Your task to perform on an android device: check android version Image 0: 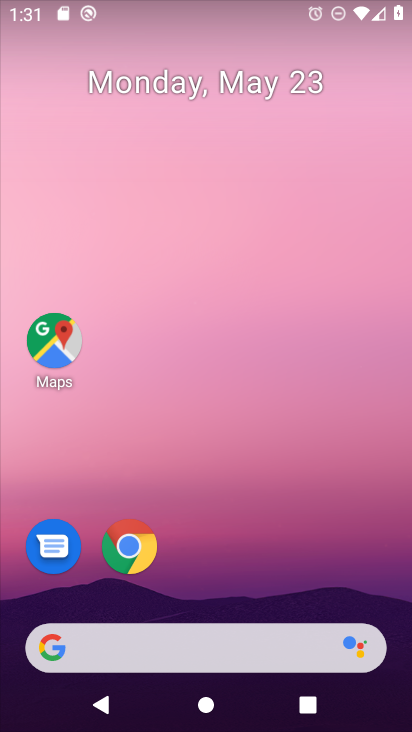
Step 0: drag from (266, 655) to (276, 222)
Your task to perform on an android device: check android version Image 1: 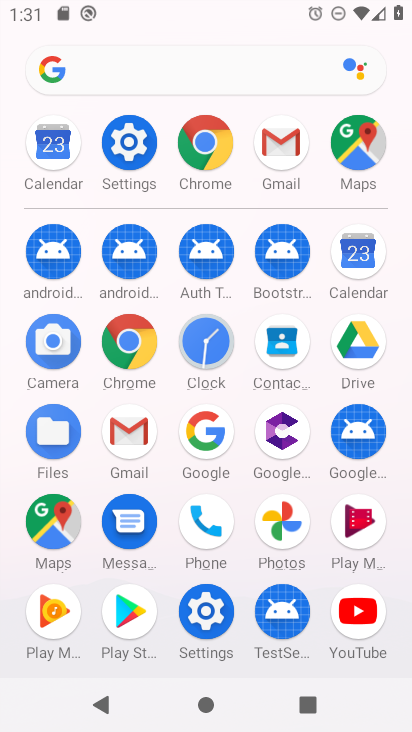
Step 1: click (142, 161)
Your task to perform on an android device: check android version Image 2: 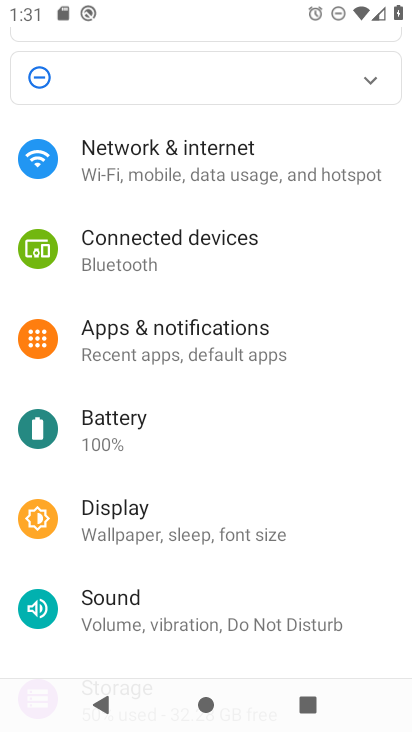
Step 2: drag from (241, 570) to (270, 132)
Your task to perform on an android device: check android version Image 3: 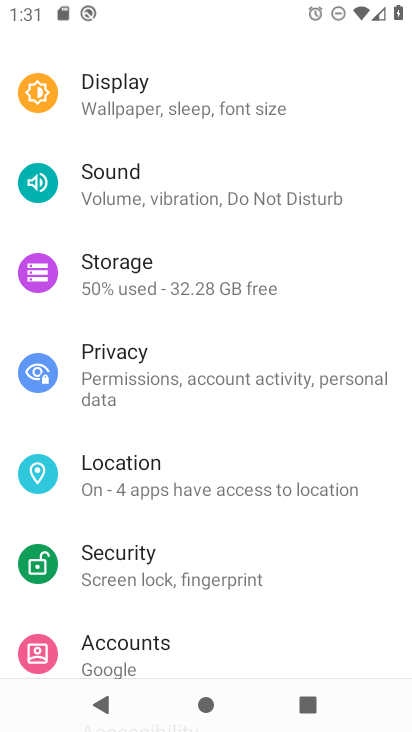
Step 3: drag from (239, 619) to (299, 60)
Your task to perform on an android device: check android version Image 4: 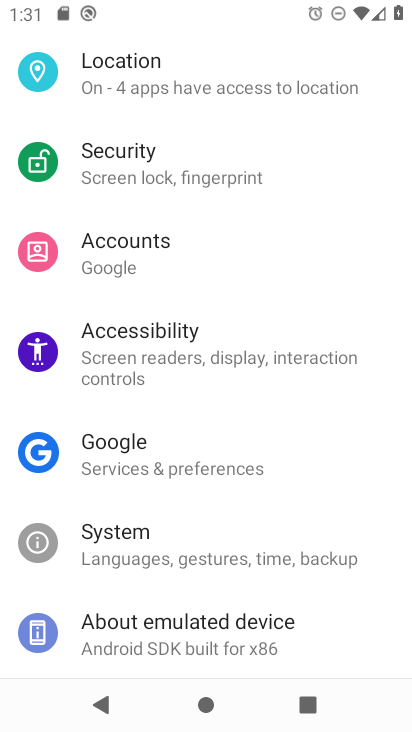
Step 4: click (208, 638)
Your task to perform on an android device: check android version Image 5: 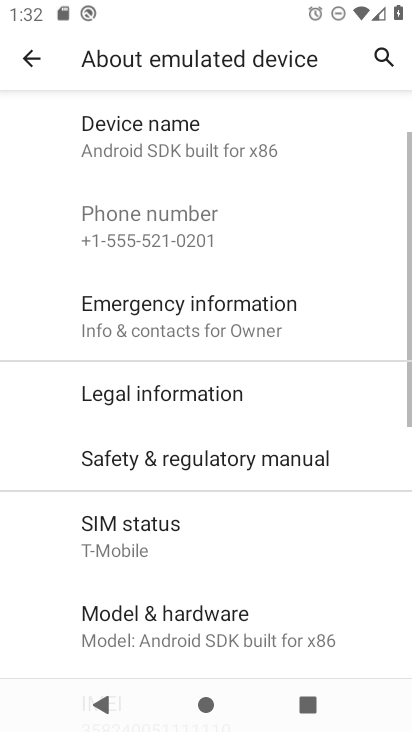
Step 5: drag from (214, 490) to (225, 146)
Your task to perform on an android device: check android version Image 6: 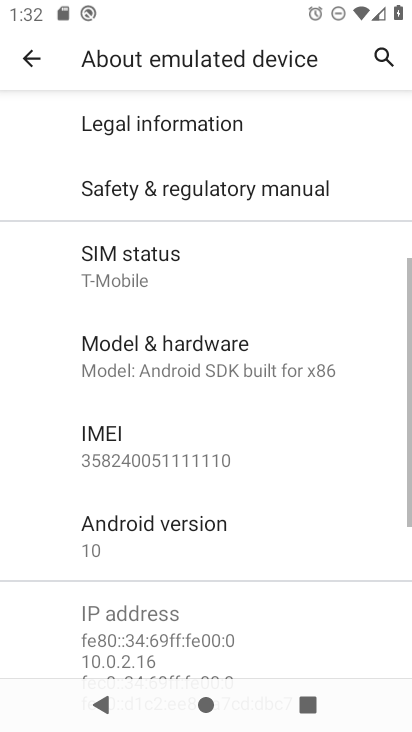
Step 6: click (231, 527)
Your task to perform on an android device: check android version Image 7: 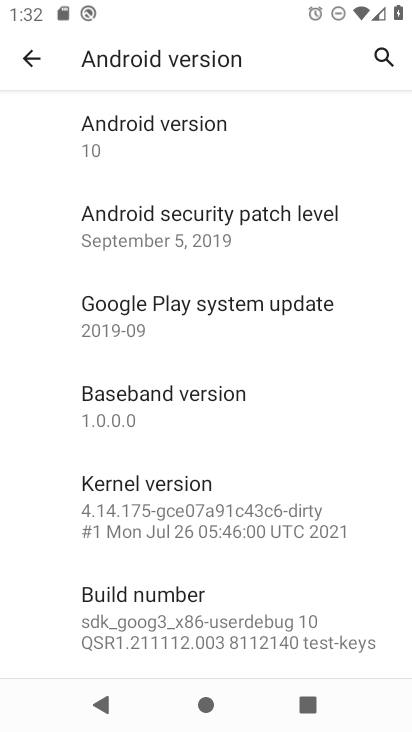
Step 7: click (223, 139)
Your task to perform on an android device: check android version Image 8: 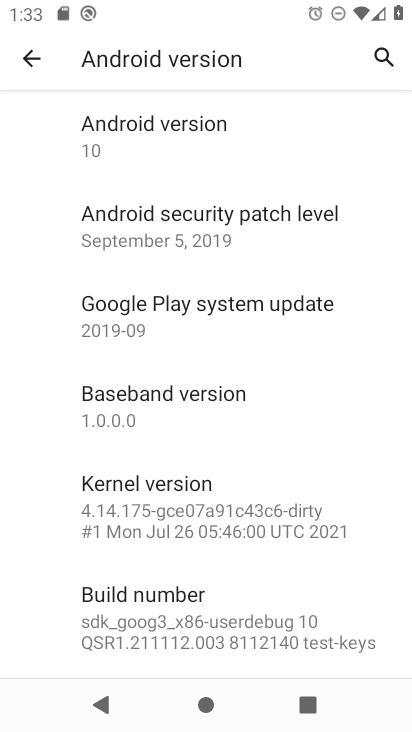
Step 8: task complete